Your task to perform on an android device: Open the stopwatch Image 0: 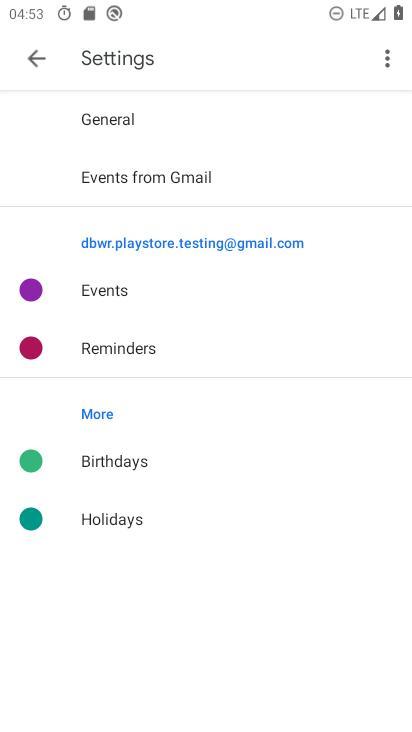
Step 0: press back button
Your task to perform on an android device: Open the stopwatch Image 1: 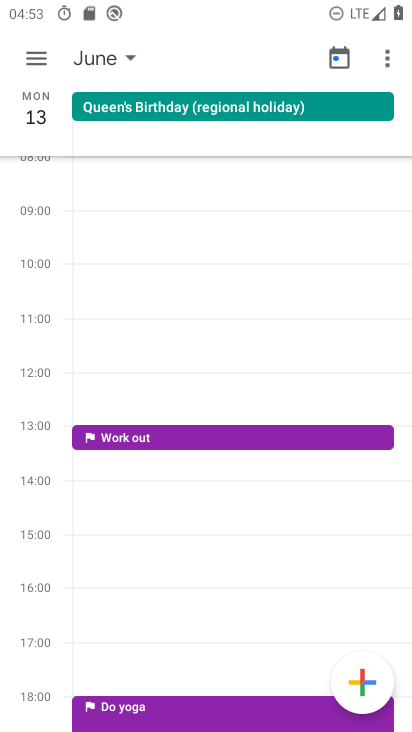
Step 1: press back button
Your task to perform on an android device: Open the stopwatch Image 2: 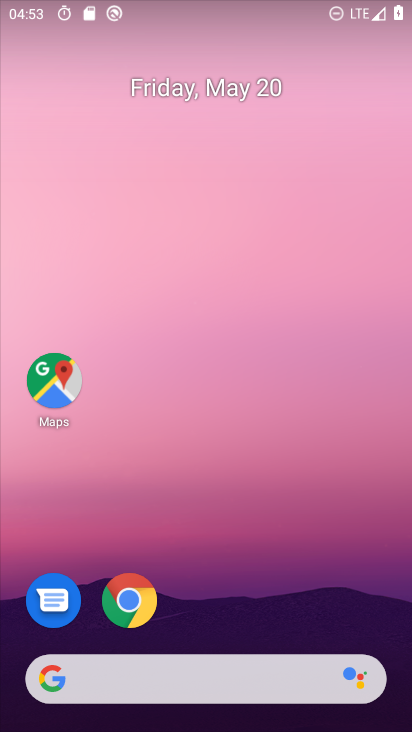
Step 2: drag from (264, 590) to (316, 20)
Your task to perform on an android device: Open the stopwatch Image 3: 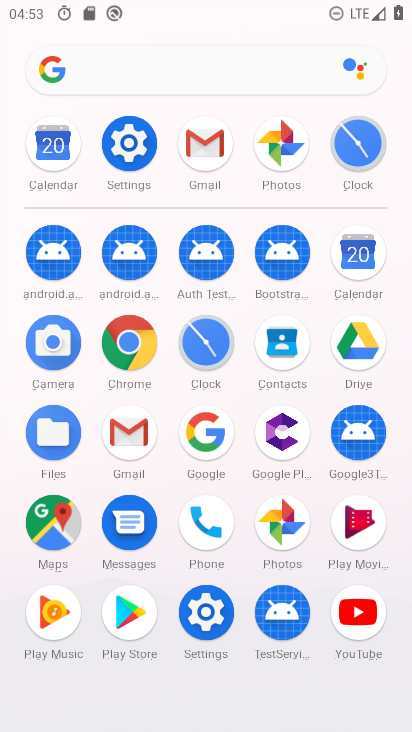
Step 3: click (355, 137)
Your task to perform on an android device: Open the stopwatch Image 4: 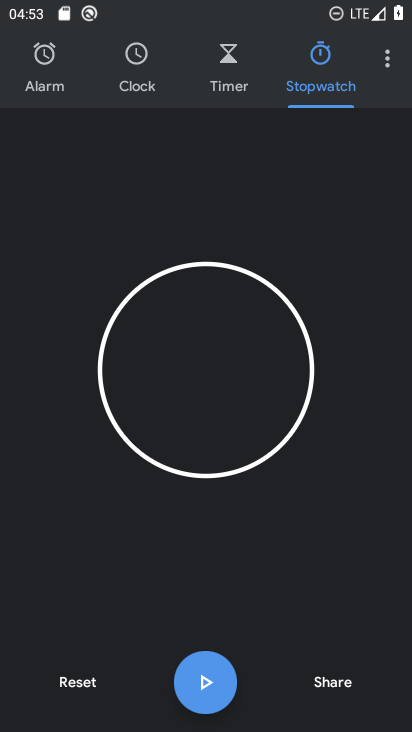
Step 4: task complete